Your task to perform on an android device: Turn off the flashlight Image 0: 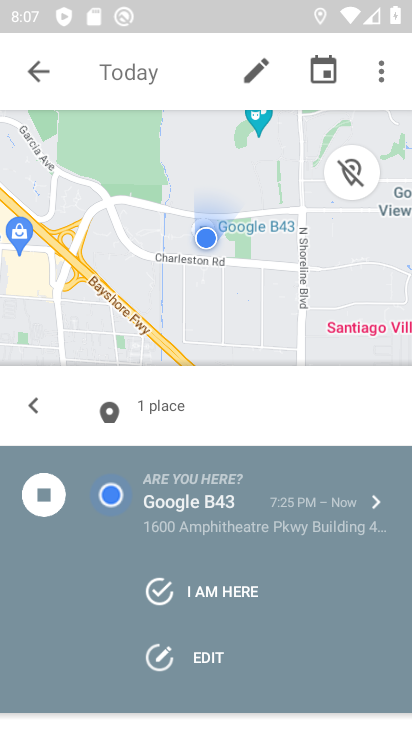
Step 0: drag from (263, 598) to (267, 126)
Your task to perform on an android device: Turn off the flashlight Image 1: 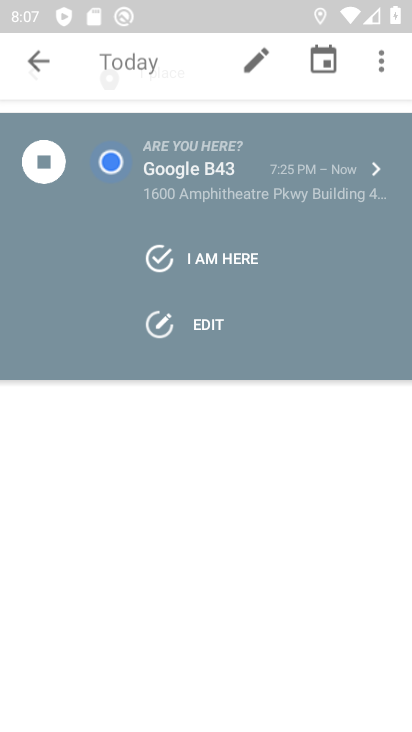
Step 1: task complete